Your task to perform on an android device: Go to Android settings Image 0: 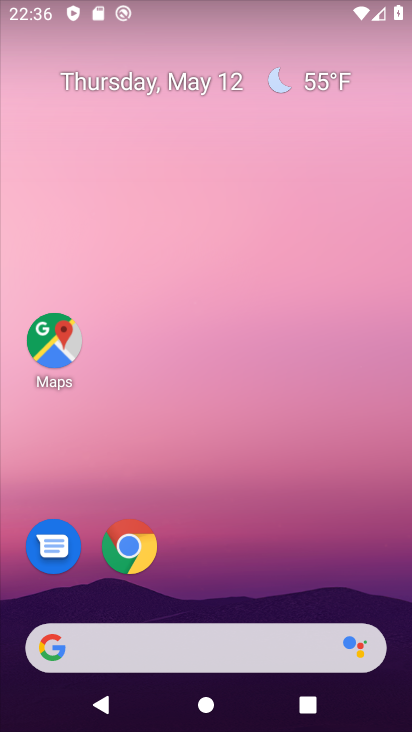
Step 0: drag from (227, 410) to (260, 139)
Your task to perform on an android device: Go to Android settings Image 1: 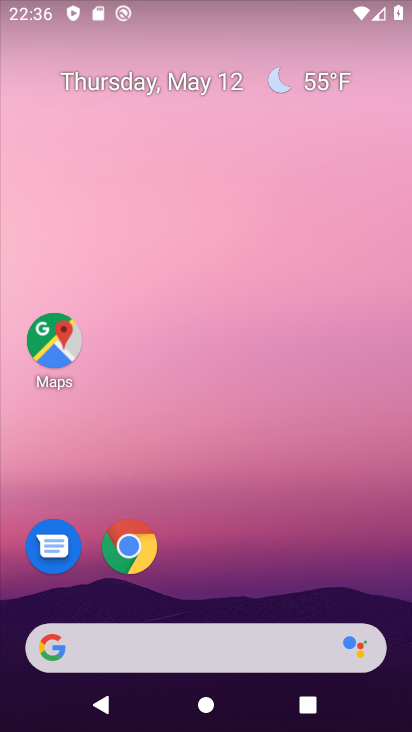
Step 1: drag from (196, 614) to (287, 86)
Your task to perform on an android device: Go to Android settings Image 2: 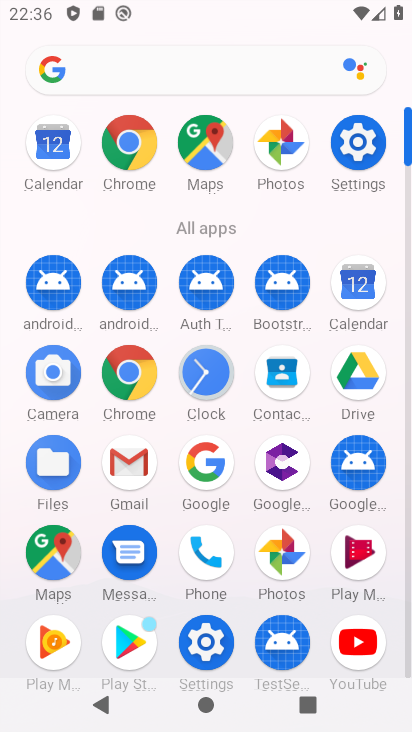
Step 2: click (355, 142)
Your task to perform on an android device: Go to Android settings Image 3: 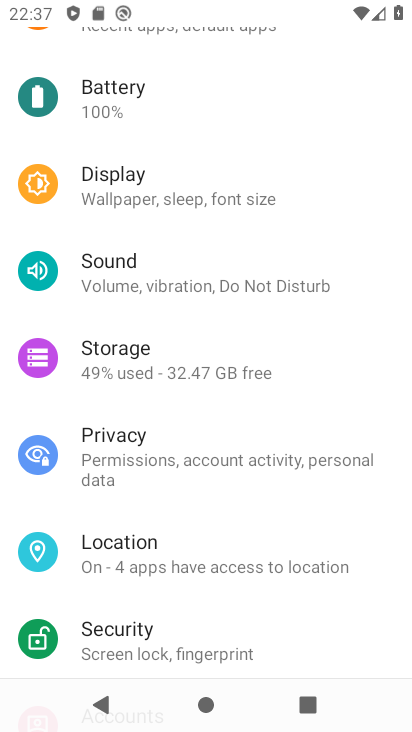
Step 3: drag from (197, 591) to (259, 100)
Your task to perform on an android device: Go to Android settings Image 4: 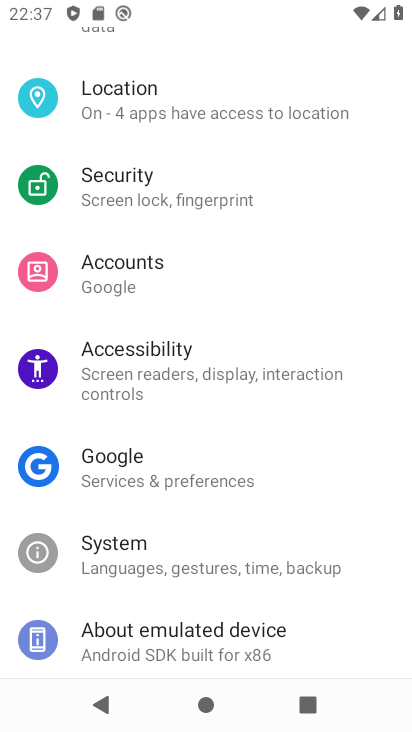
Step 4: drag from (174, 599) to (205, 335)
Your task to perform on an android device: Go to Android settings Image 5: 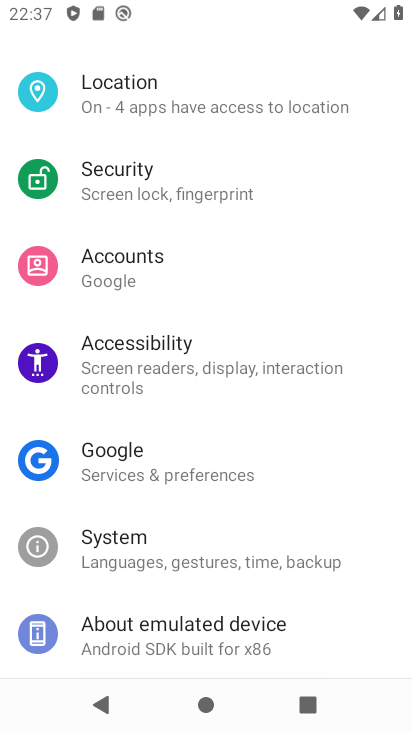
Step 5: click (154, 636)
Your task to perform on an android device: Go to Android settings Image 6: 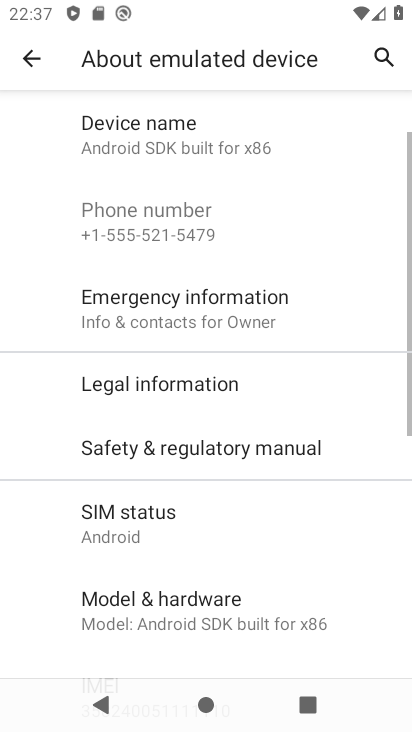
Step 6: task complete